Your task to perform on an android device: turn on the 24-hour format for clock Image 0: 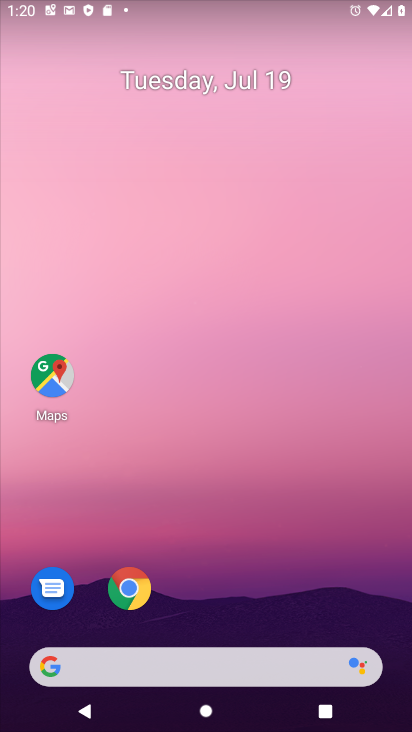
Step 0: drag from (316, 627) to (287, 64)
Your task to perform on an android device: turn on the 24-hour format for clock Image 1: 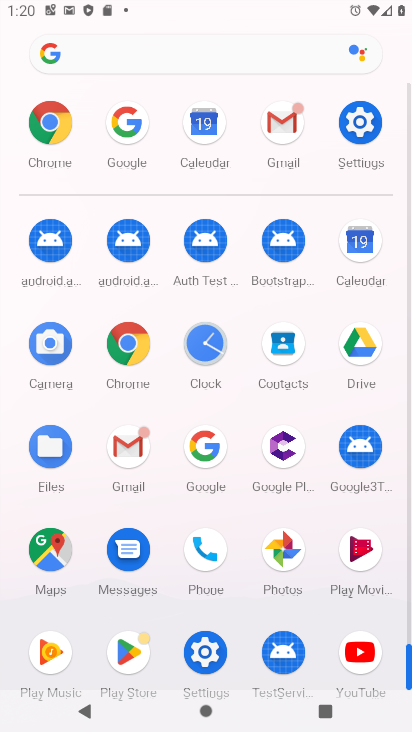
Step 1: click (191, 356)
Your task to perform on an android device: turn on the 24-hour format for clock Image 2: 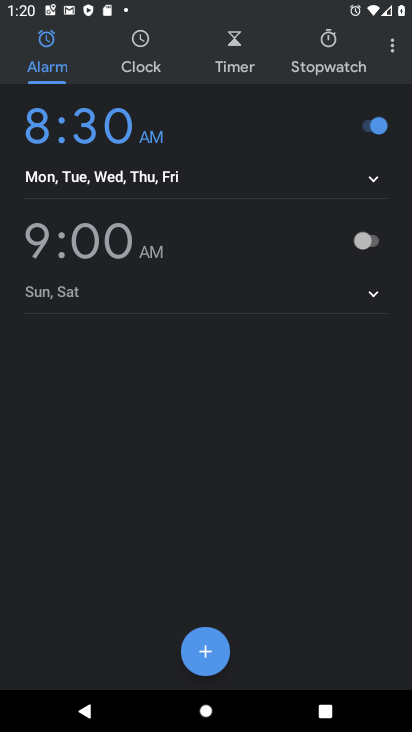
Step 2: click (391, 45)
Your task to perform on an android device: turn on the 24-hour format for clock Image 3: 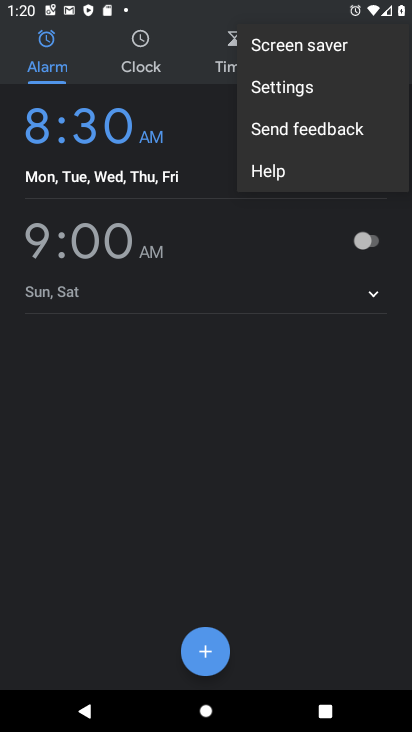
Step 3: click (289, 108)
Your task to perform on an android device: turn on the 24-hour format for clock Image 4: 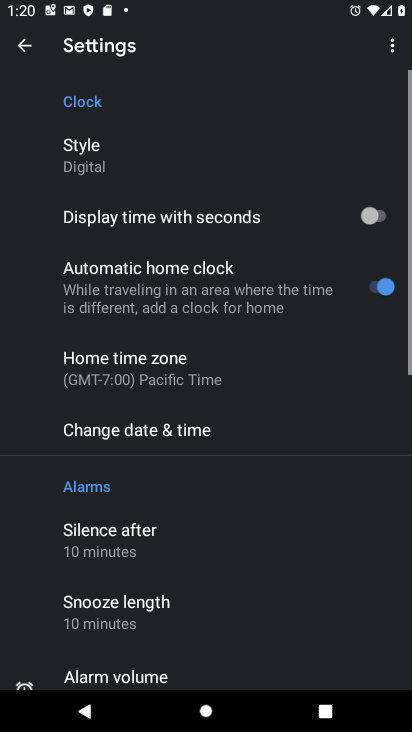
Step 4: click (170, 453)
Your task to perform on an android device: turn on the 24-hour format for clock Image 5: 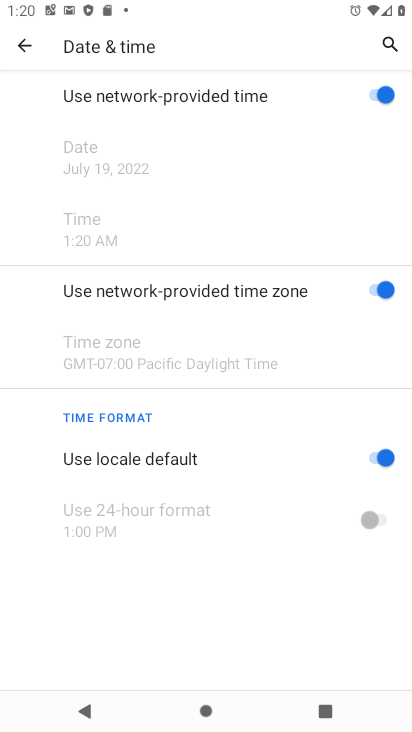
Step 5: task complete